Your task to perform on an android device: turn on data saver in the chrome app Image 0: 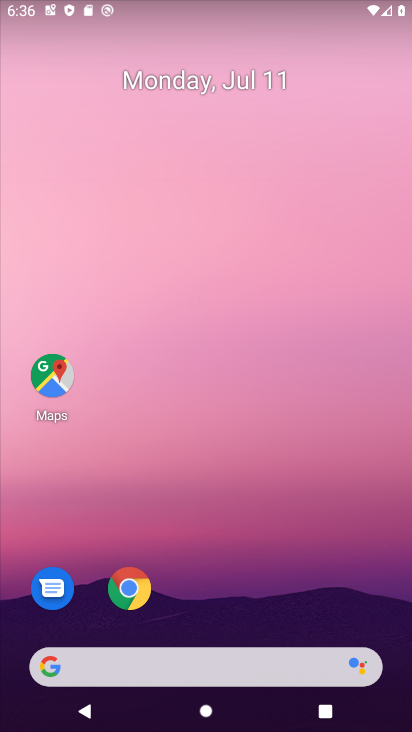
Step 0: drag from (390, 674) to (279, 12)
Your task to perform on an android device: turn on data saver in the chrome app Image 1: 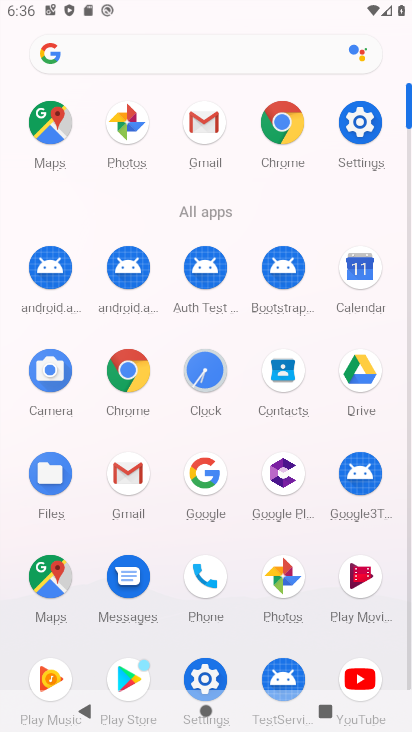
Step 1: click (286, 131)
Your task to perform on an android device: turn on data saver in the chrome app Image 2: 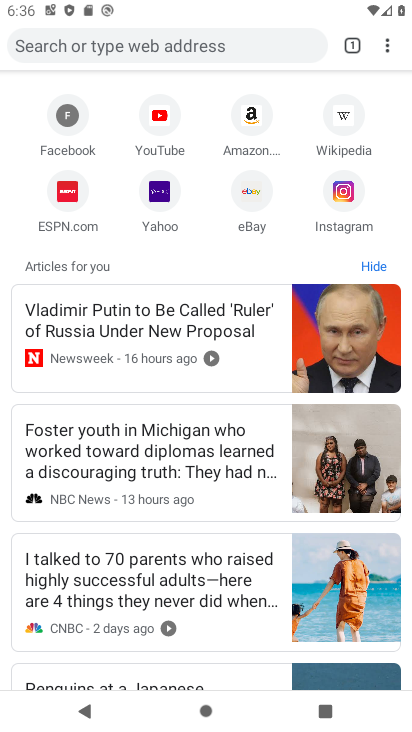
Step 2: click (385, 42)
Your task to perform on an android device: turn on data saver in the chrome app Image 3: 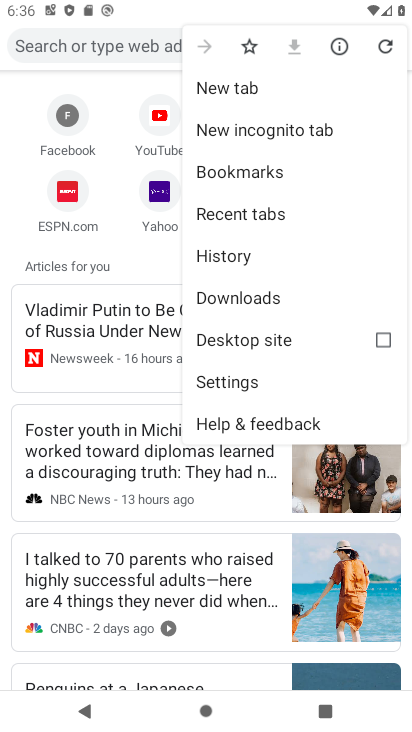
Step 3: click (218, 391)
Your task to perform on an android device: turn on data saver in the chrome app Image 4: 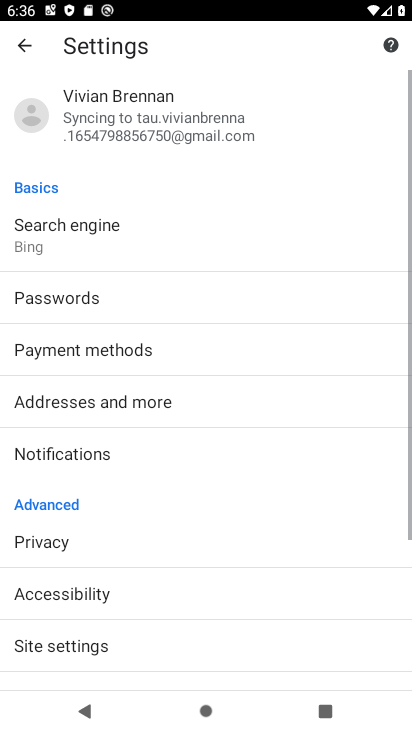
Step 4: drag from (91, 606) to (101, 153)
Your task to perform on an android device: turn on data saver in the chrome app Image 5: 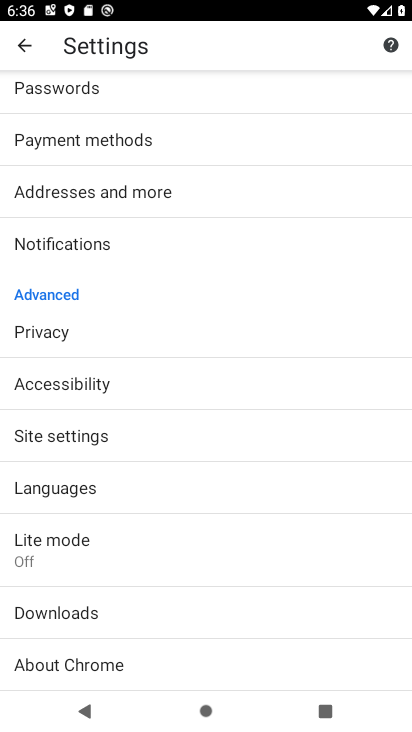
Step 5: click (53, 546)
Your task to perform on an android device: turn on data saver in the chrome app Image 6: 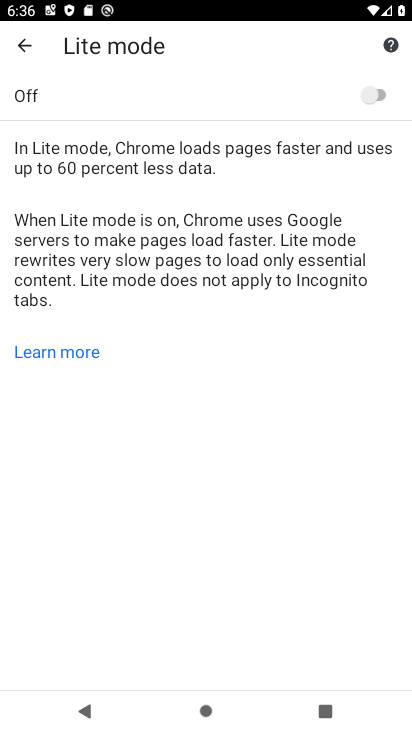
Step 6: click (375, 93)
Your task to perform on an android device: turn on data saver in the chrome app Image 7: 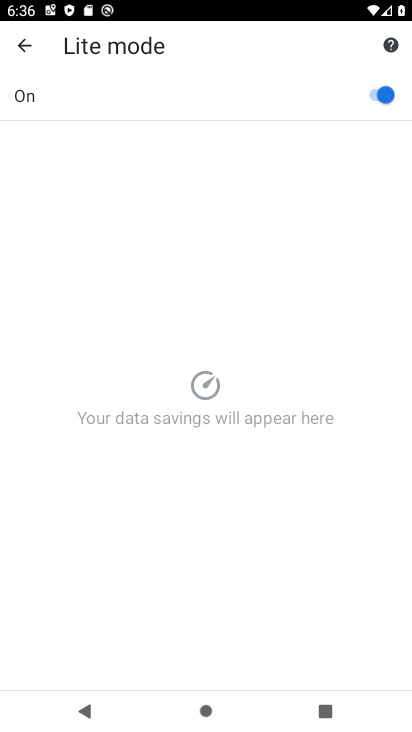
Step 7: task complete